Your task to perform on an android device: Open the calculator Image 0: 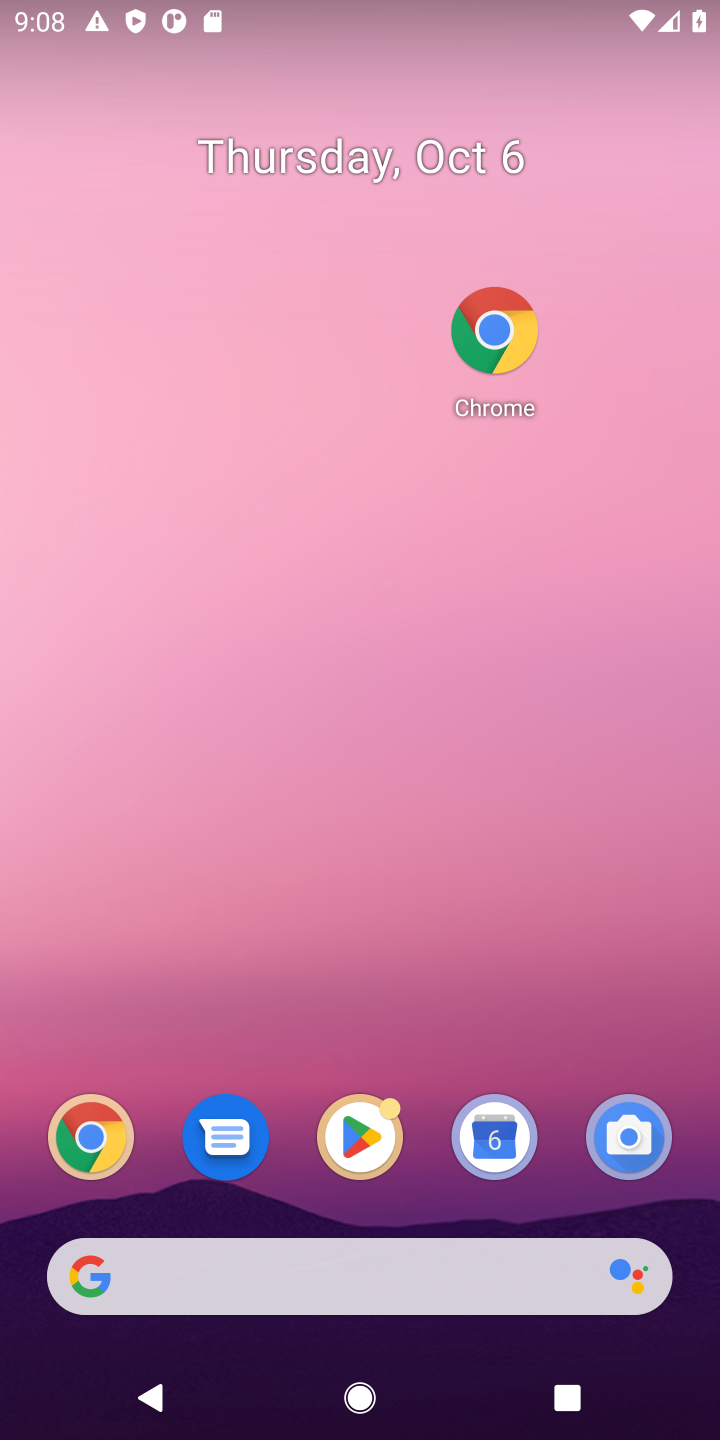
Step 0: drag from (425, 1211) to (525, 31)
Your task to perform on an android device: Open the calculator Image 1: 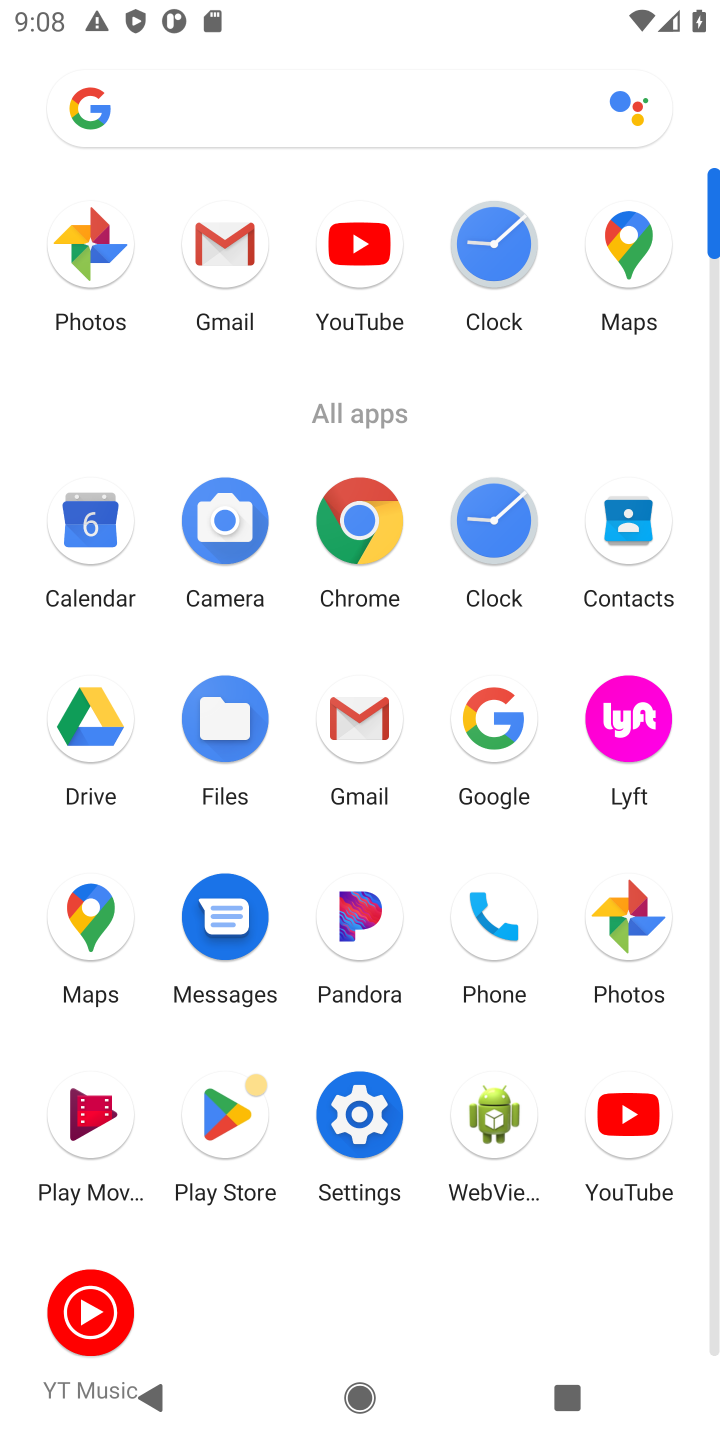
Step 1: click (275, 122)
Your task to perform on an android device: Open the calculator Image 2: 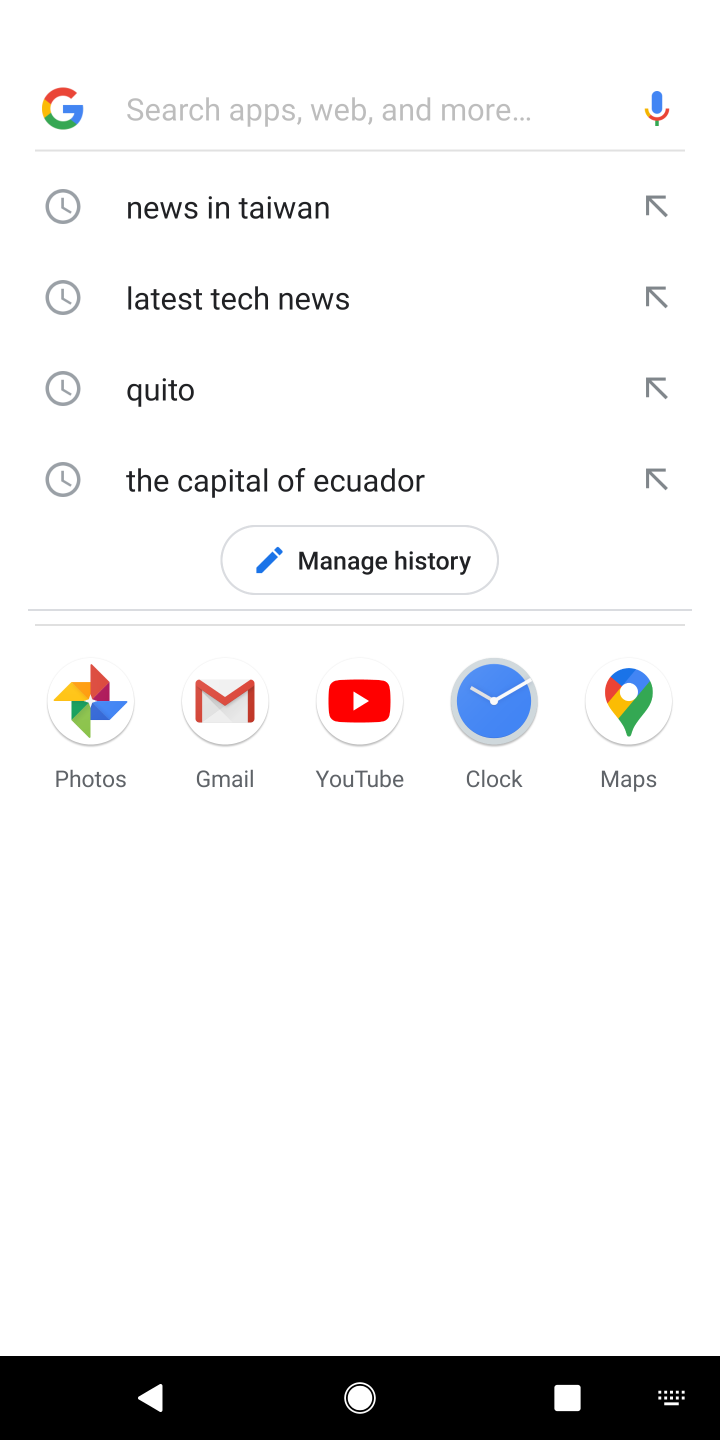
Step 2: type "calculater"
Your task to perform on an android device: Open the calculator Image 3: 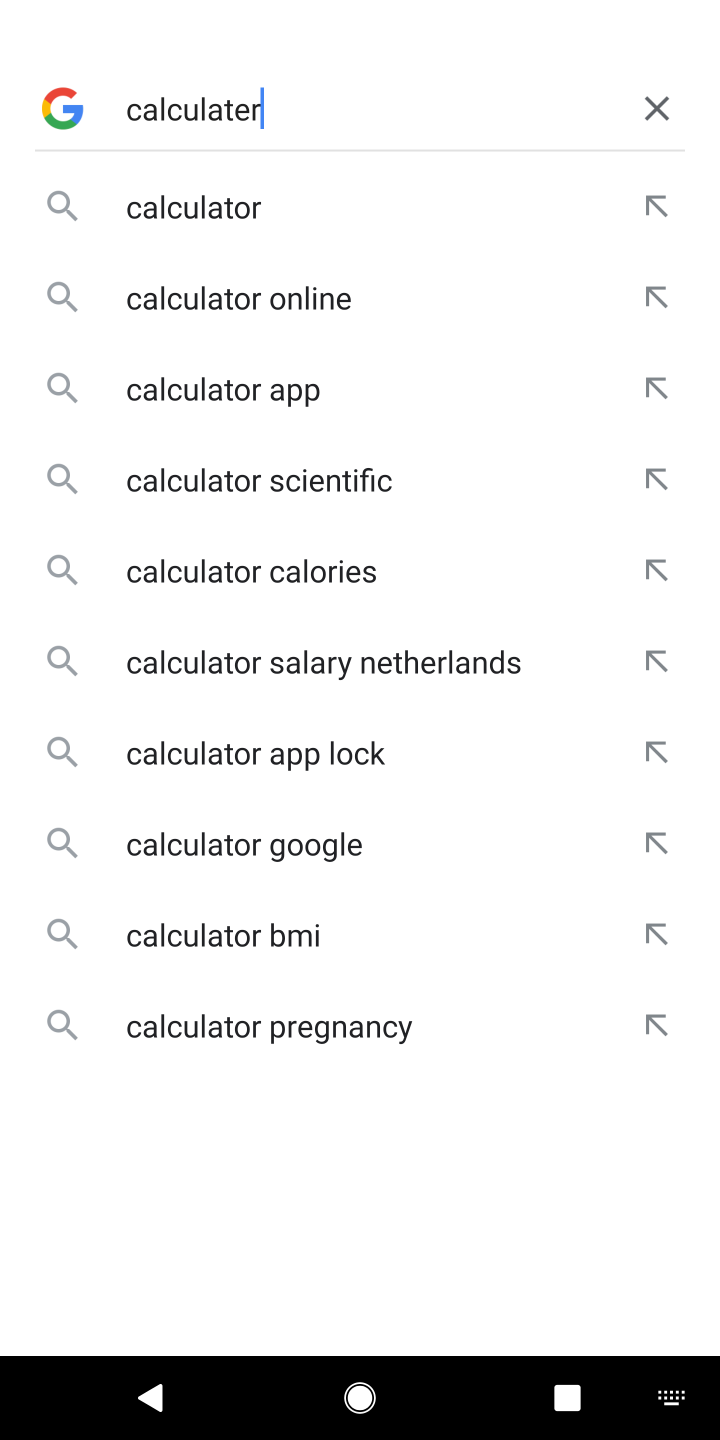
Step 3: click (197, 219)
Your task to perform on an android device: Open the calculator Image 4: 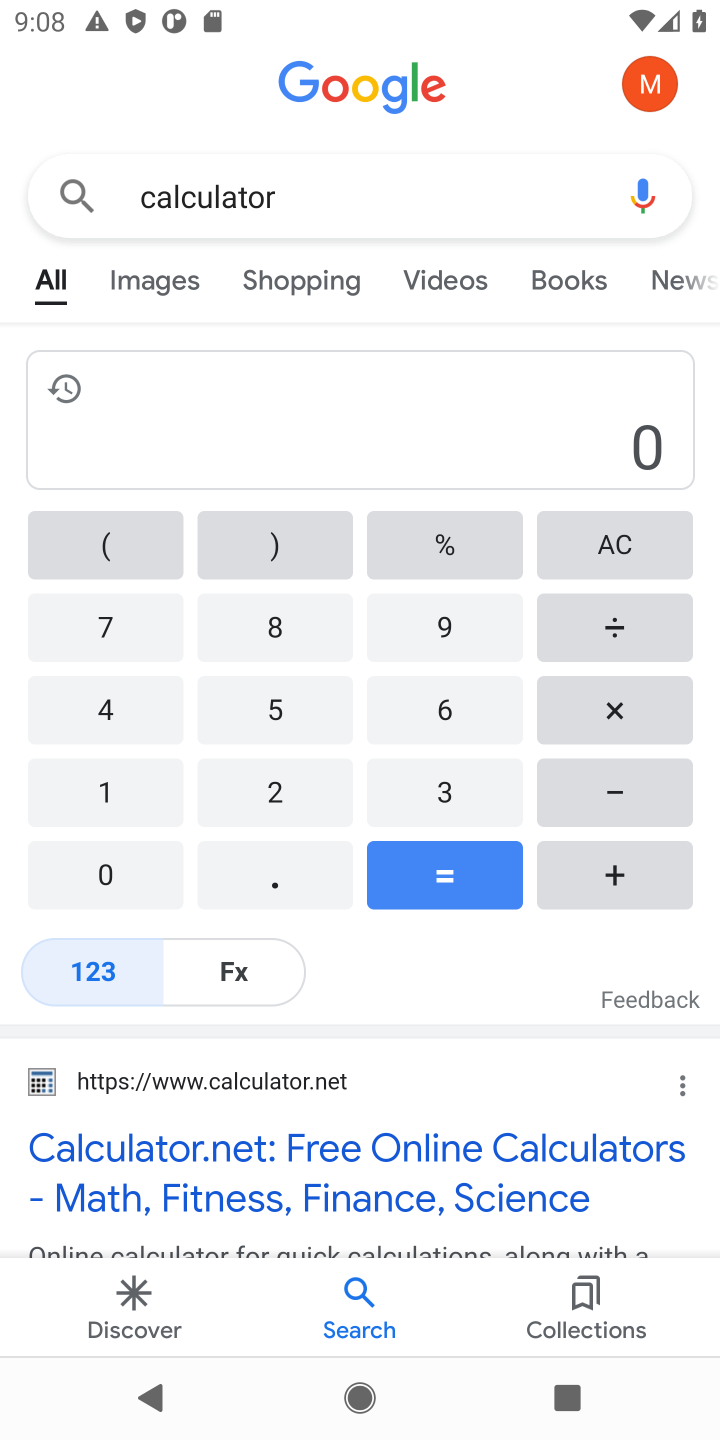
Step 4: click (444, 791)
Your task to perform on an android device: Open the calculator Image 5: 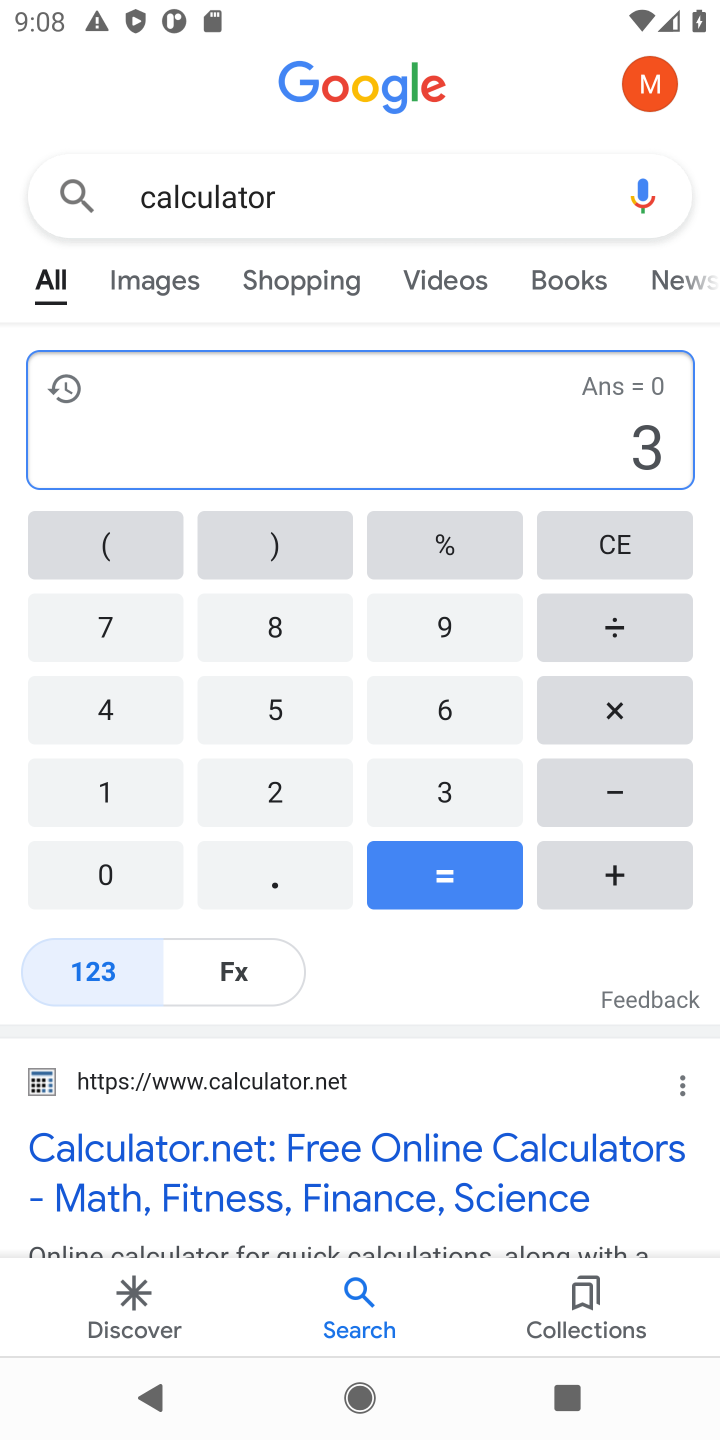
Step 5: task complete